Your task to perform on an android device: change the clock display to analog Image 0: 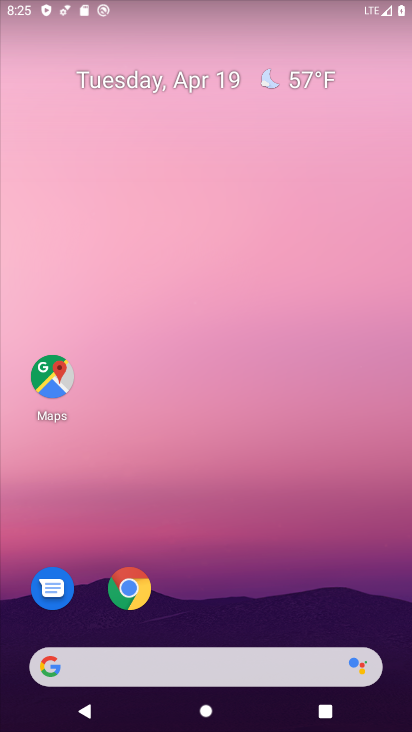
Step 0: drag from (258, 600) to (240, 23)
Your task to perform on an android device: change the clock display to analog Image 1: 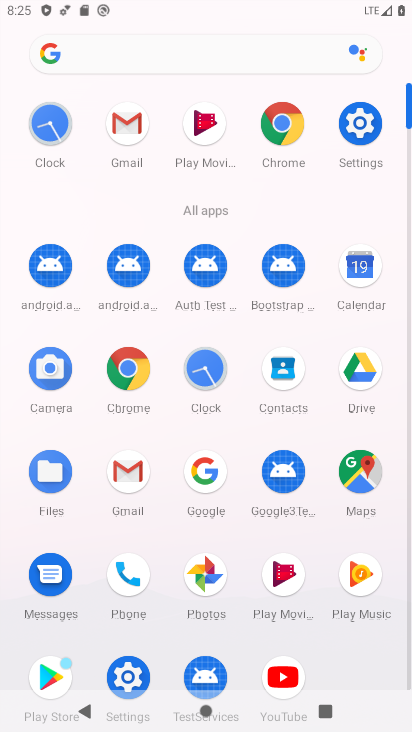
Step 1: click (202, 367)
Your task to perform on an android device: change the clock display to analog Image 2: 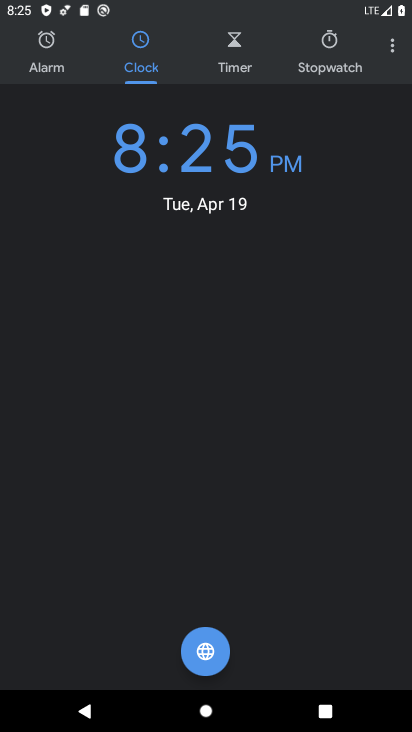
Step 2: click (387, 36)
Your task to perform on an android device: change the clock display to analog Image 3: 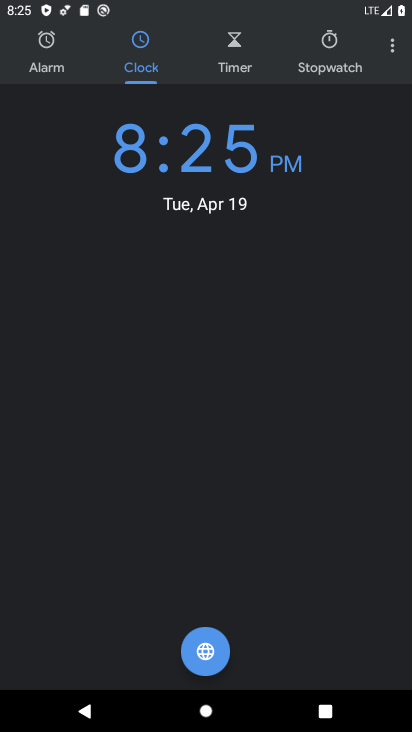
Step 3: click (395, 46)
Your task to perform on an android device: change the clock display to analog Image 4: 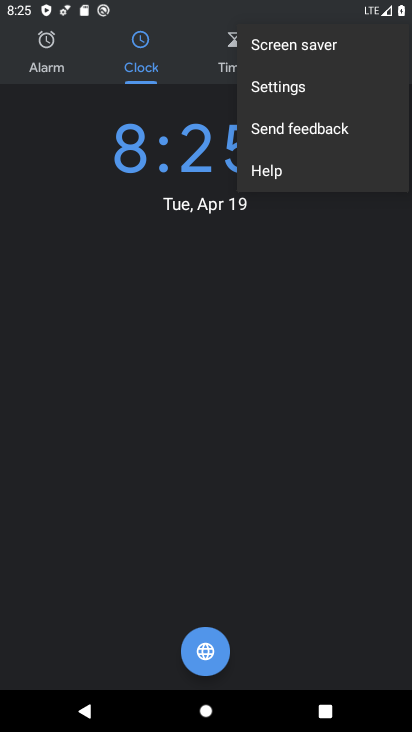
Step 4: click (350, 90)
Your task to perform on an android device: change the clock display to analog Image 5: 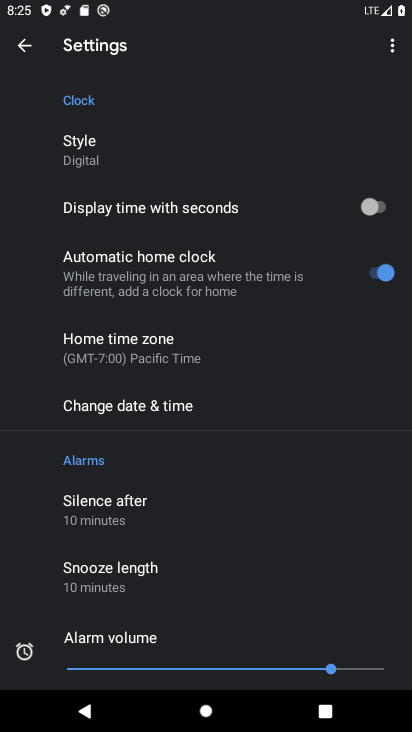
Step 5: click (94, 157)
Your task to perform on an android device: change the clock display to analog Image 6: 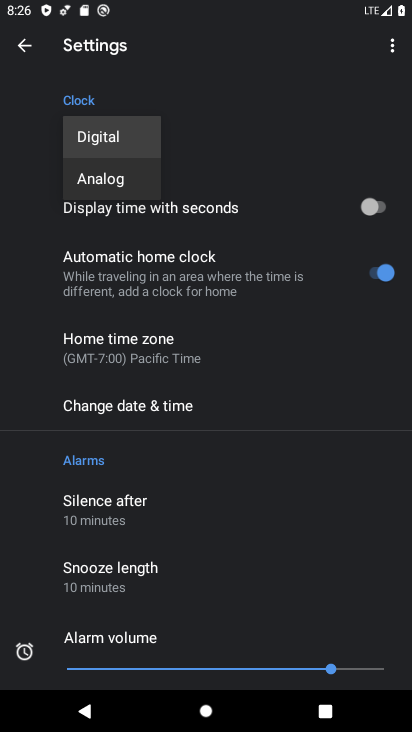
Step 6: click (103, 175)
Your task to perform on an android device: change the clock display to analog Image 7: 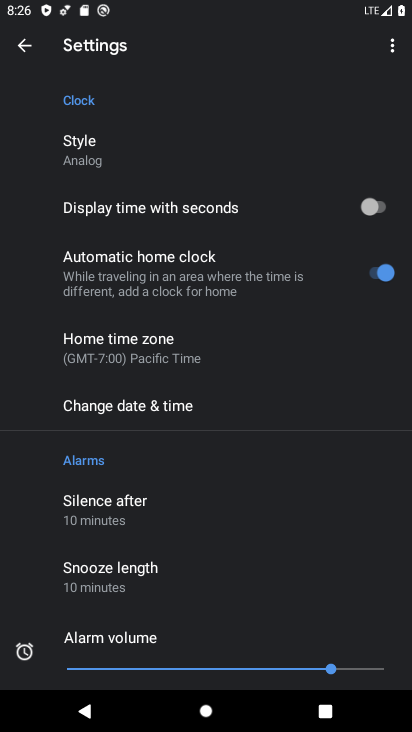
Step 7: task complete